Your task to perform on an android device: find which apps use the phone's location Image 0: 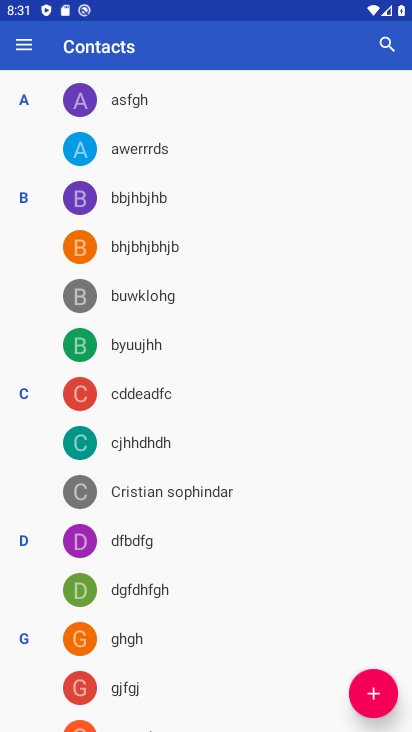
Step 0: press home button
Your task to perform on an android device: find which apps use the phone's location Image 1: 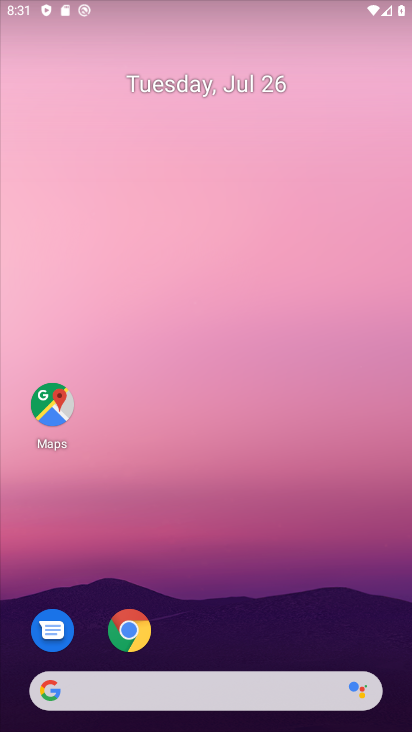
Step 1: drag from (249, 659) to (285, 166)
Your task to perform on an android device: find which apps use the phone's location Image 2: 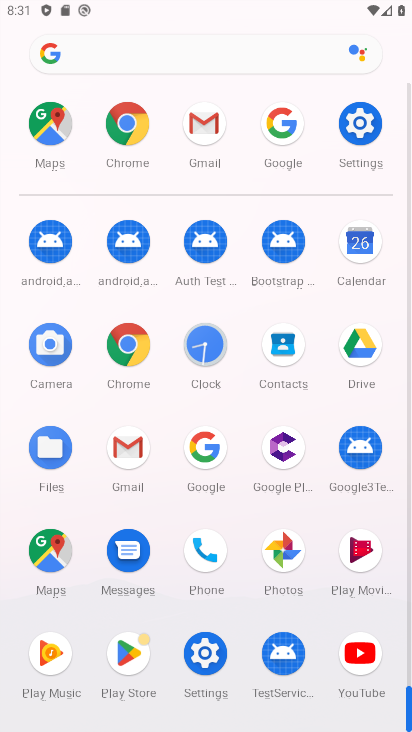
Step 2: click (357, 127)
Your task to perform on an android device: find which apps use the phone's location Image 3: 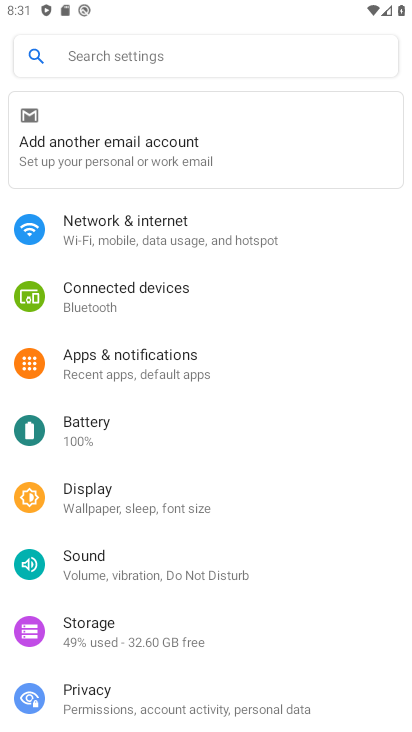
Step 3: click (160, 397)
Your task to perform on an android device: find which apps use the phone's location Image 4: 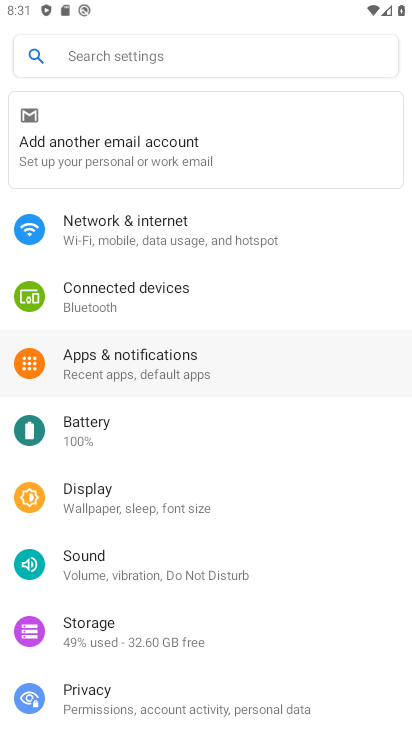
Step 4: click (135, 359)
Your task to perform on an android device: find which apps use the phone's location Image 5: 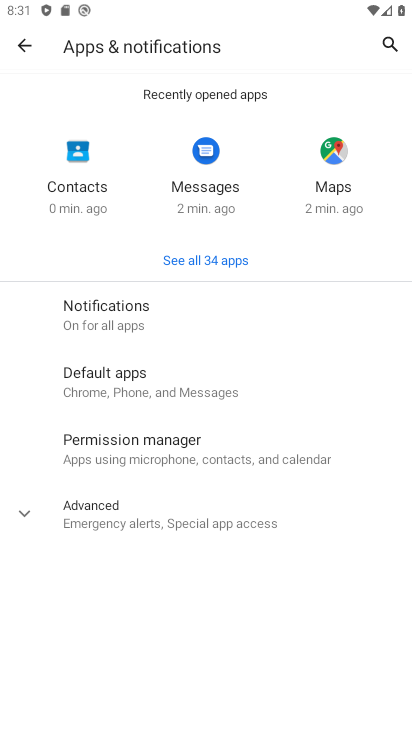
Step 5: click (163, 447)
Your task to perform on an android device: find which apps use the phone's location Image 6: 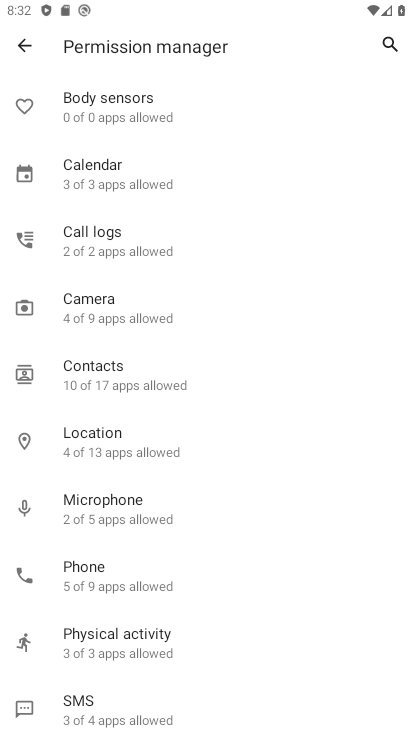
Step 6: task complete